Your task to perform on an android device: Show me the alarms in the clock app Image 0: 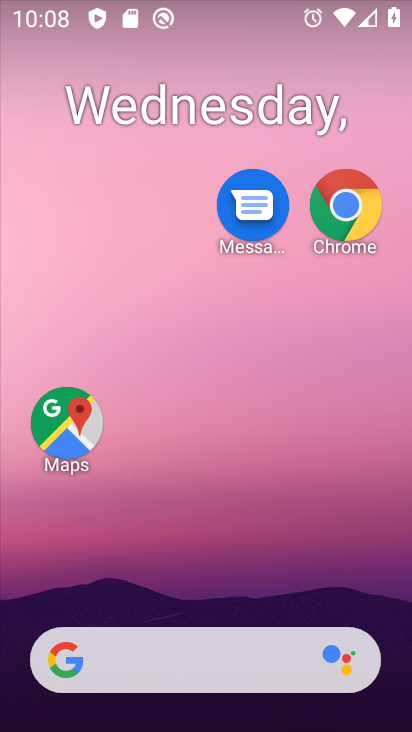
Step 0: drag from (192, 580) to (230, 145)
Your task to perform on an android device: Show me the alarms in the clock app Image 1: 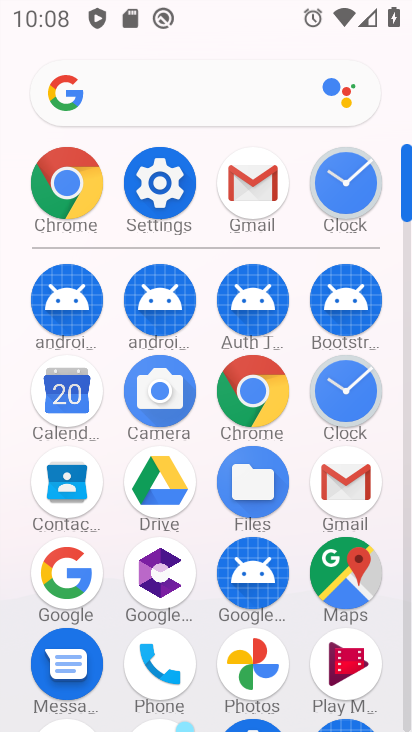
Step 1: click (342, 397)
Your task to perform on an android device: Show me the alarms in the clock app Image 2: 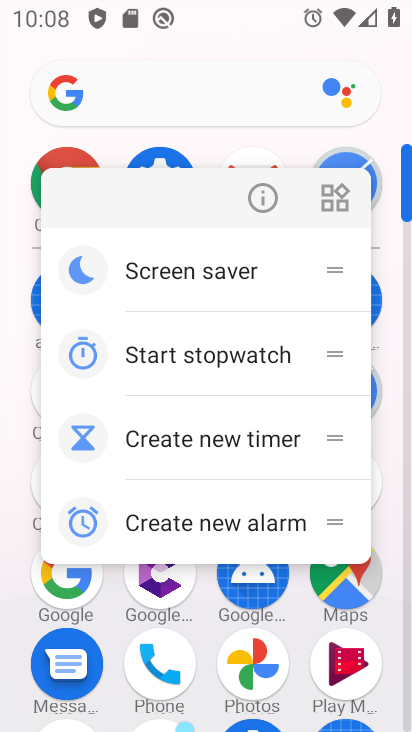
Step 2: click (261, 197)
Your task to perform on an android device: Show me the alarms in the clock app Image 3: 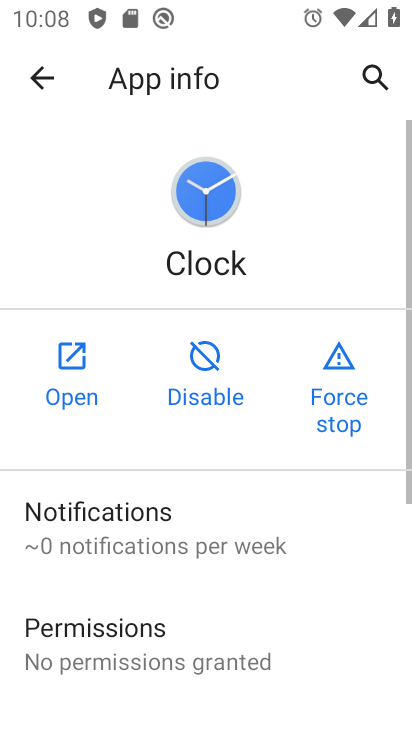
Step 3: click (62, 364)
Your task to perform on an android device: Show me the alarms in the clock app Image 4: 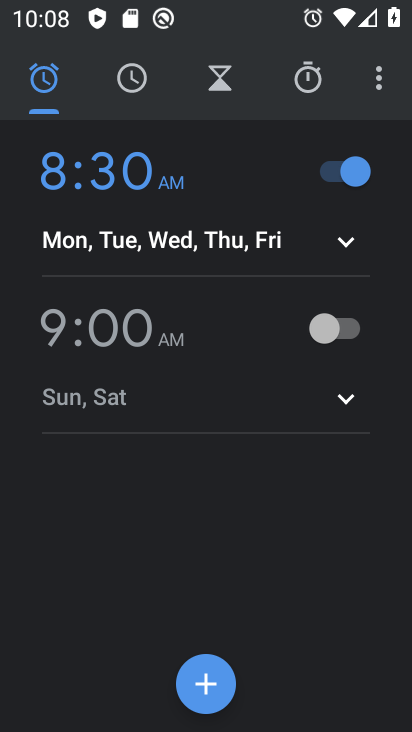
Step 4: click (47, 104)
Your task to perform on an android device: Show me the alarms in the clock app Image 5: 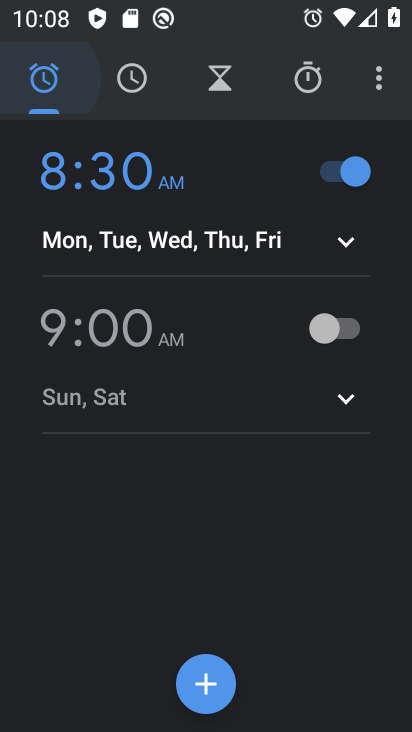
Step 5: task complete